Your task to perform on an android device: all mails in gmail Image 0: 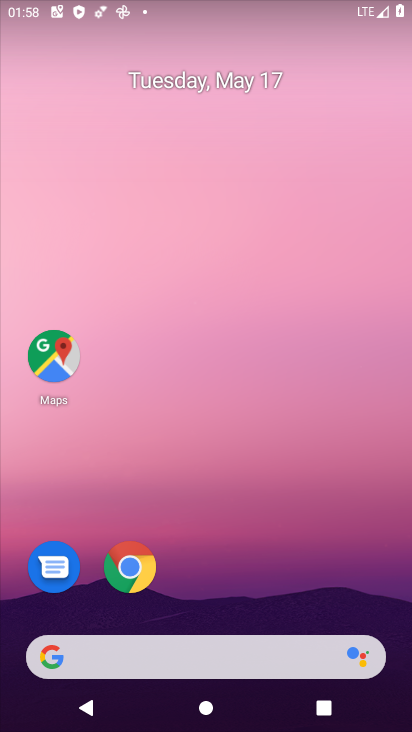
Step 0: drag from (397, 635) to (306, 48)
Your task to perform on an android device: all mails in gmail Image 1: 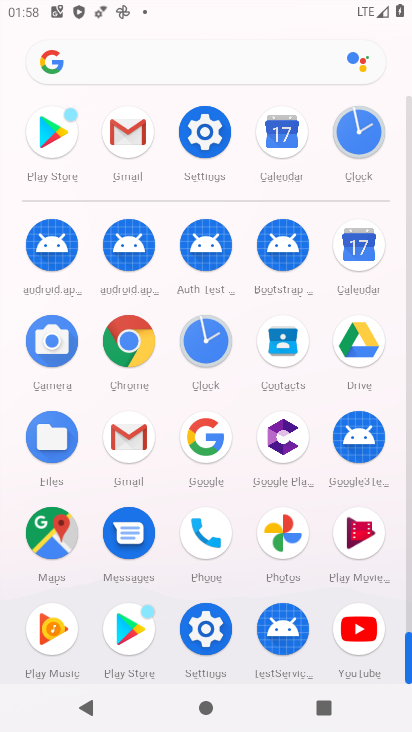
Step 1: click (127, 436)
Your task to perform on an android device: all mails in gmail Image 2: 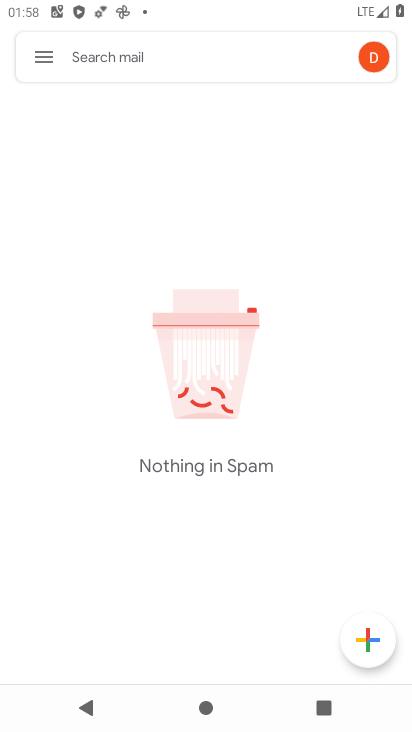
Step 2: click (41, 59)
Your task to perform on an android device: all mails in gmail Image 3: 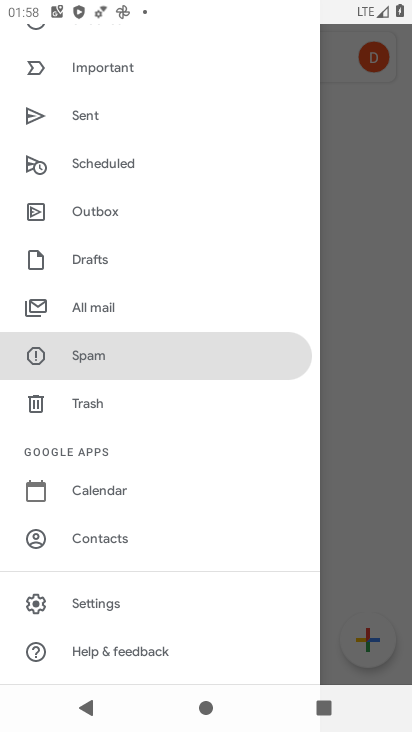
Step 3: click (99, 308)
Your task to perform on an android device: all mails in gmail Image 4: 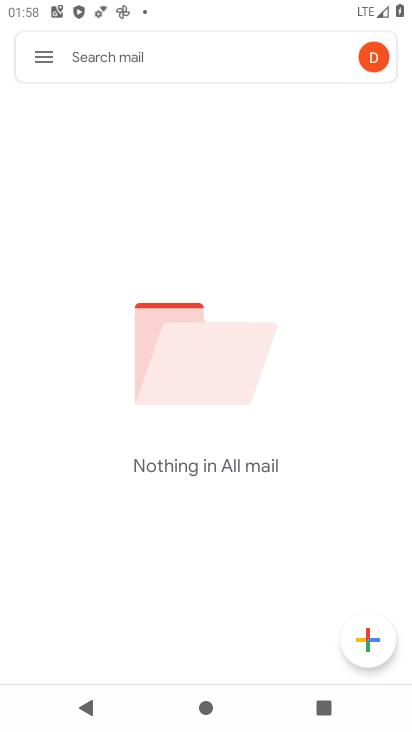
Step 4: task complete